Your task to perform on an android device: Go to Wikipedia Image 0: 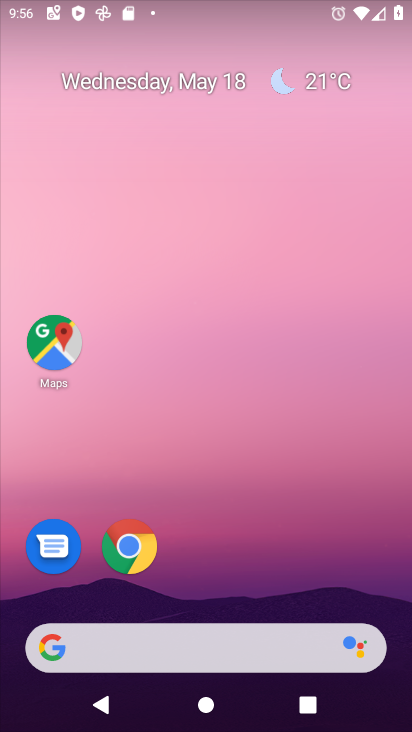
Step 0: drag from (396, 603) to (291, 139)
Your task to perform on an android device: Go to Wikipedia Image 1: 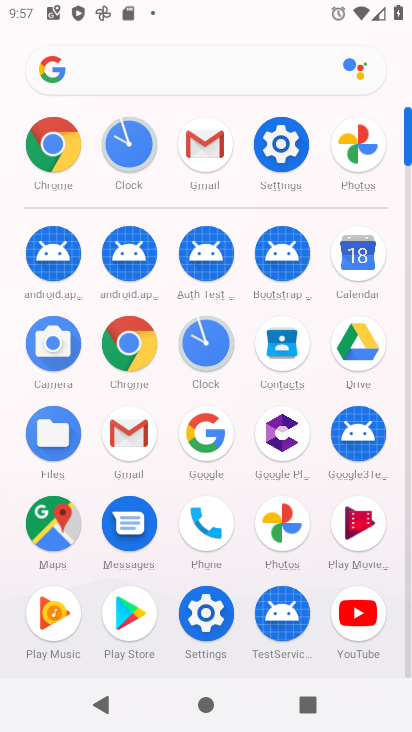
Step 1: click (140, 358)
Your task to perform on an android device: Go to Wikipedia Image 2: 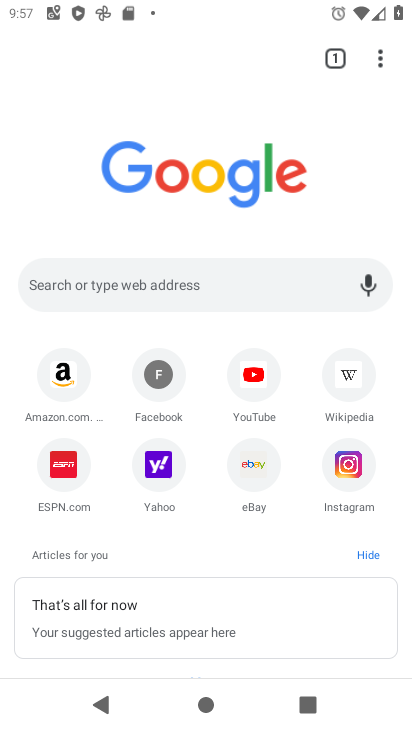
Step 2: click (359, 376)
Your task to perform on an android device: Go to Wikipedia Image 3: 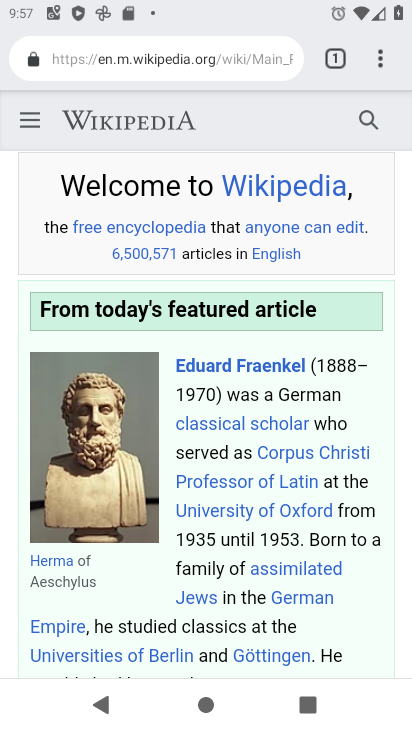
Step 3: task complete